Your task to perform on an android device: What is the recent news? Image 0: 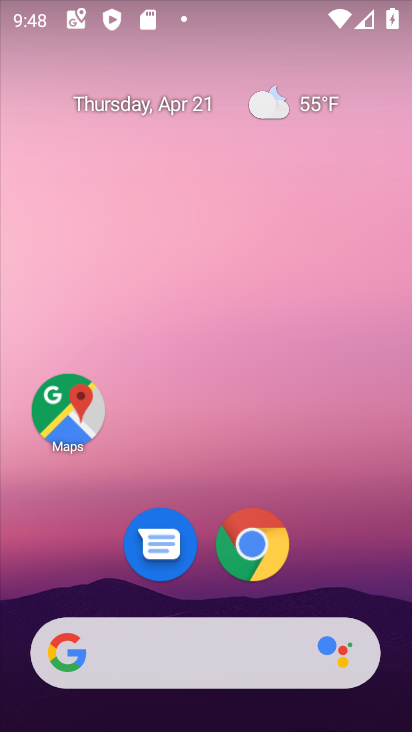
Step 0: drag from (337, 563) to (194, 10)
Your task to perform on an android device: What is the recent news? Image 1: 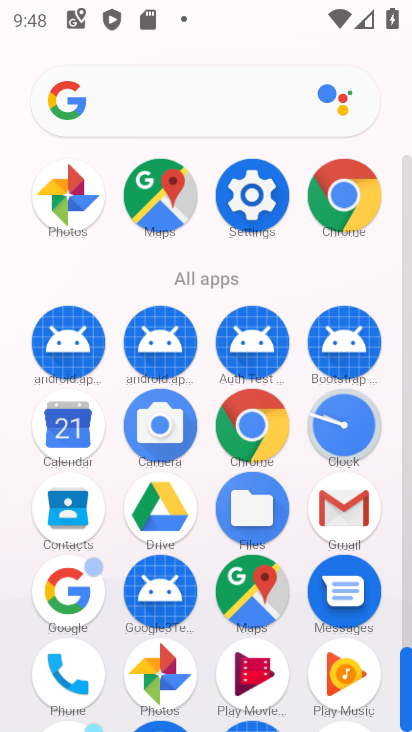
Step 1: drag from (17, 563) to (3, 262)
Your task to perform on an android device: What is the recent news? Image 2: 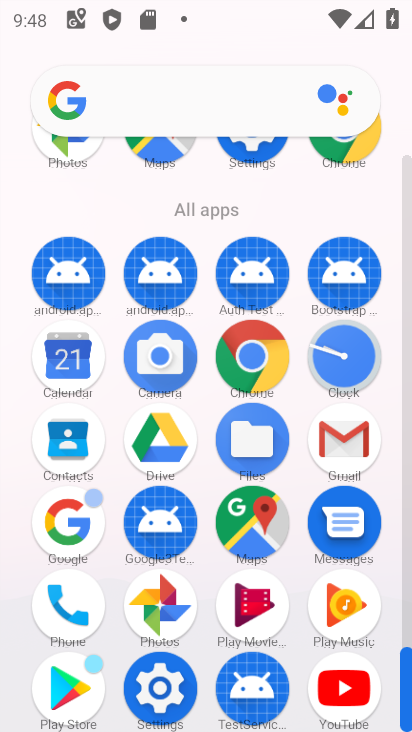
Step 2: click (135, 94)
Your task to perform on an android device: What is the recent news? Image 3: 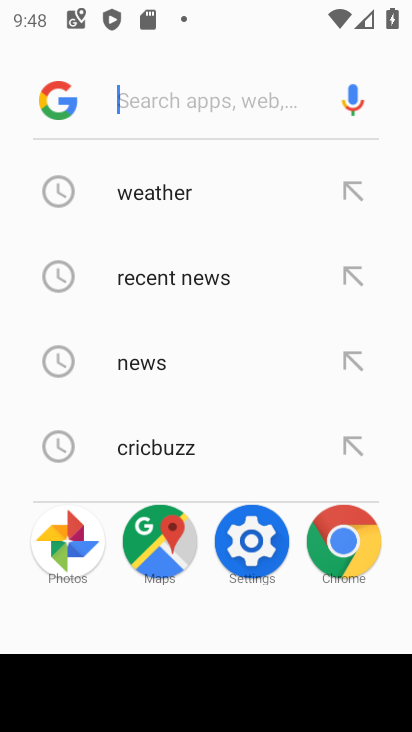
Step 3: click (177, 270)
Your task to perform on an android device: What is the recent news? Image 4: 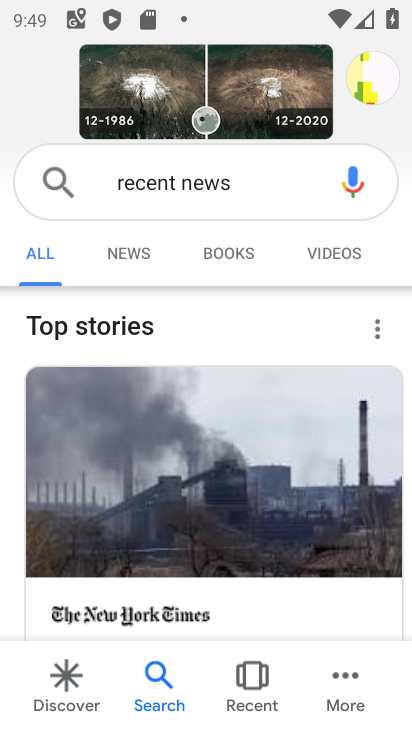
Step 4: click (134, 247)
Your task to perform on an android device: What is the recent news? Image 5: 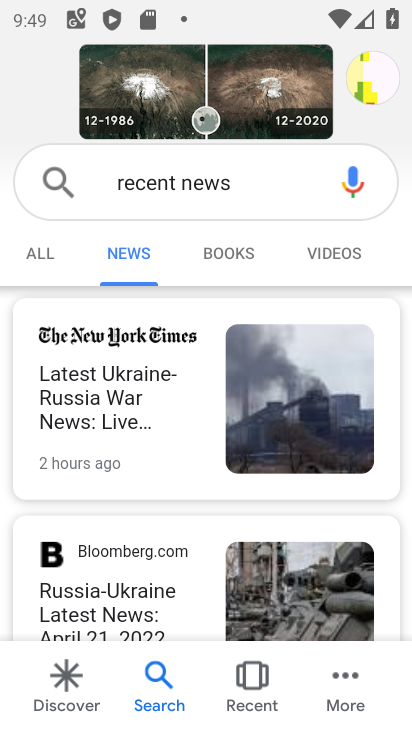
Step 5: task complete